Your task to perform on an android device: turn off wifi Image 0: 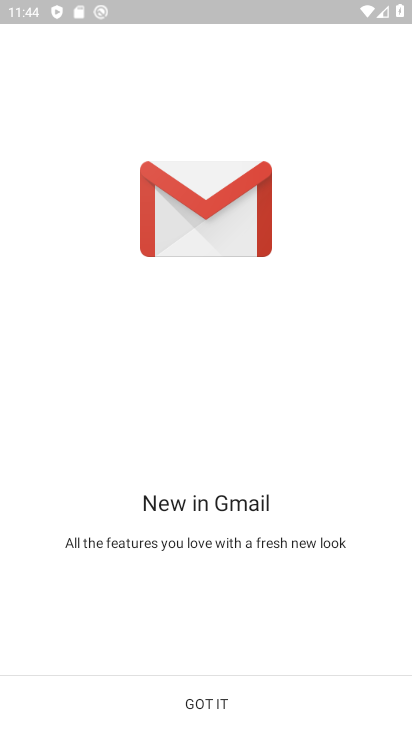
Step 0: press home button
Your task to perform on an android device: turn off wifi Image 1: 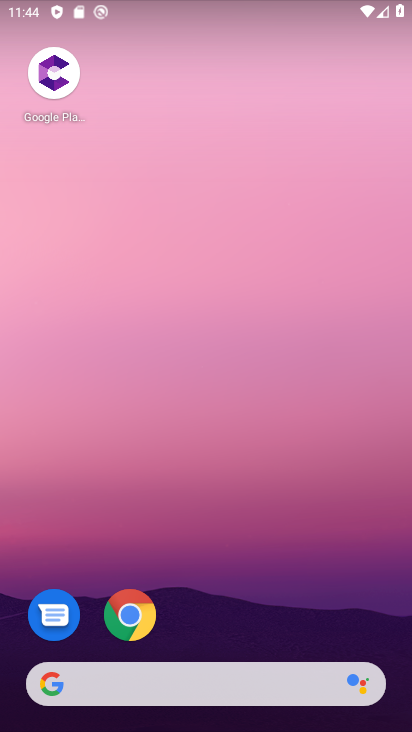
Step 1: drag from (279, 723) to (305, 249)
Your task to perform on an android device: turn off wifi Image 2: 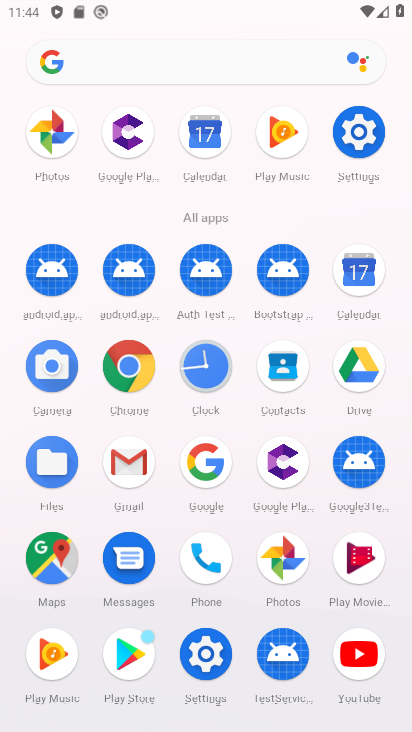
Step 2: click (353, 145)
Your task to perform on an android device: turn off wifi Image 3: 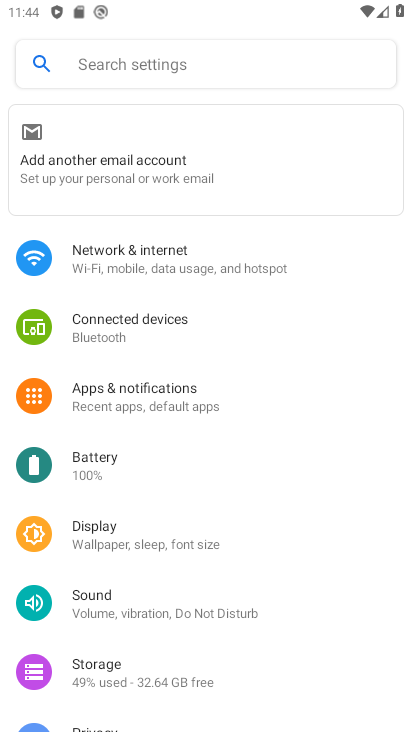
Step 3: click (104, 264)
Your task to perform on an android device: turn off wifi Image 4: 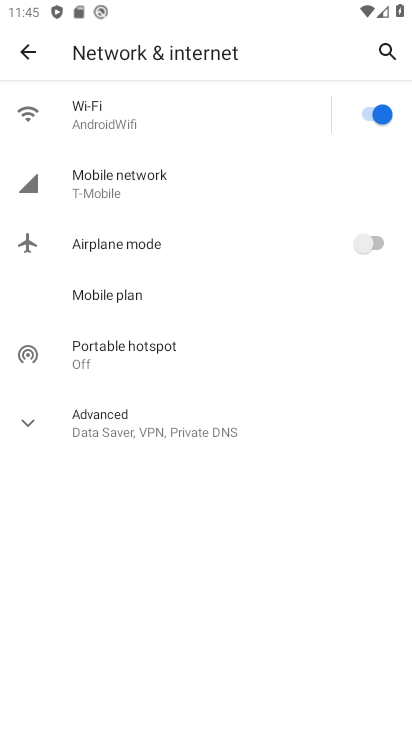
Step 4: click (146, 126)
Your task to perform on an android device: turn off wifi Image 5: 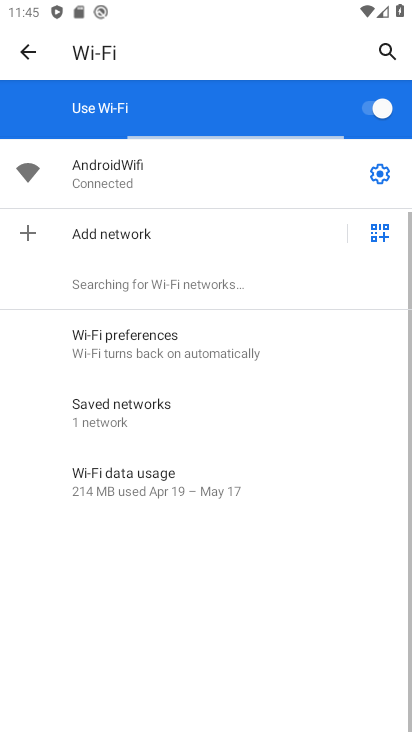
Step 5: click (370, 109)
Your task to perform on an android device: turn off wifi Image 6: 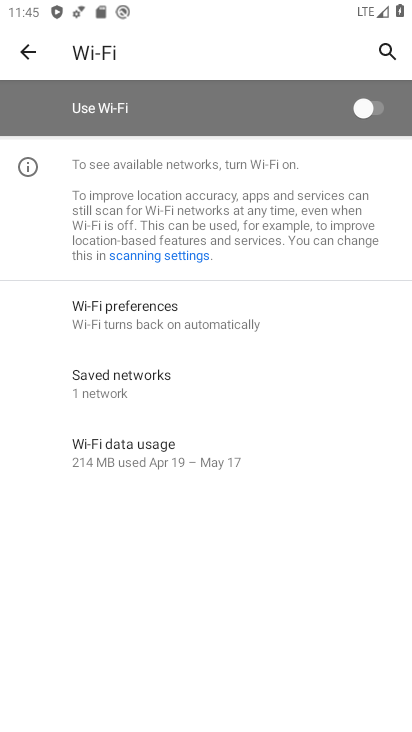
Step 6: task complete